Your task to perform on an android device: Go to Android settings Image 0: 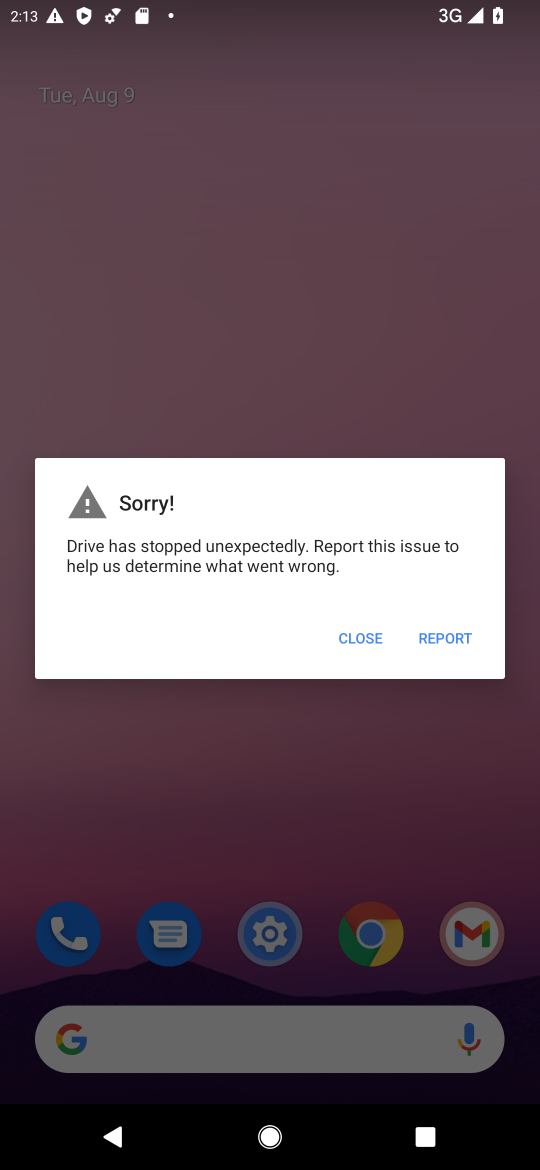
Step 0: click (322, 614)
Your task to perform on an android device: Go to Android settings Image 1: 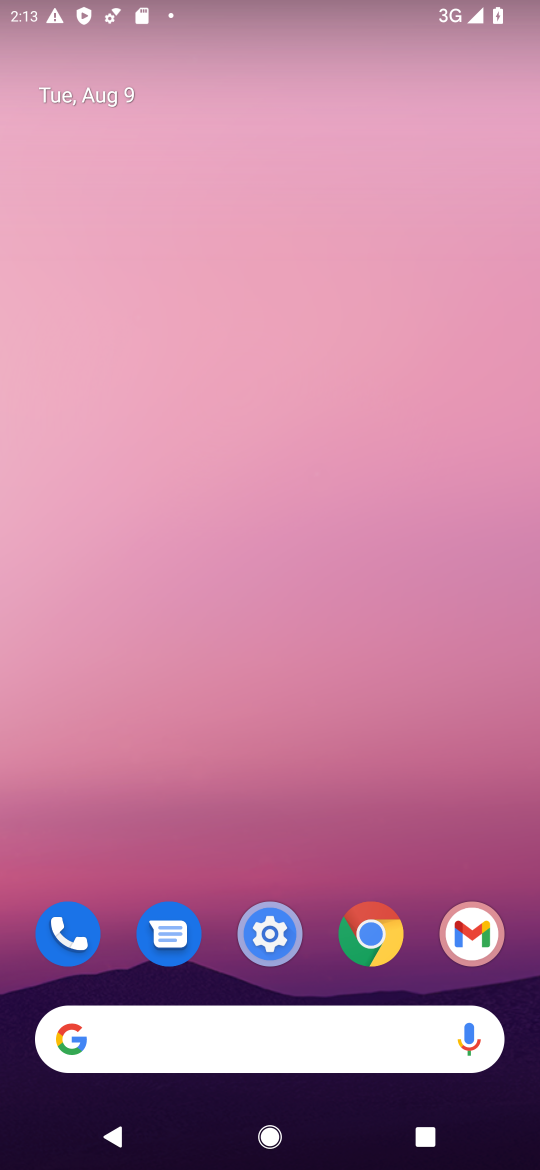
Step 1: click (271, 936)
Your task to perform on an android device: Go to Android settings Image 2: 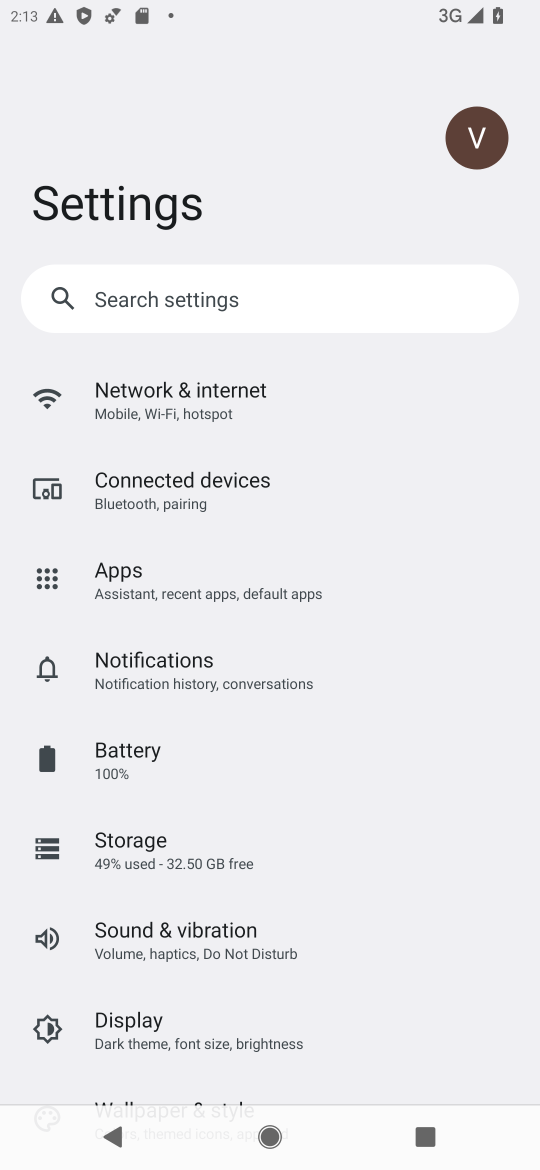
Step 2: task complete